Your task to perform on an android device: change notification settings in the gmail app Image 0: 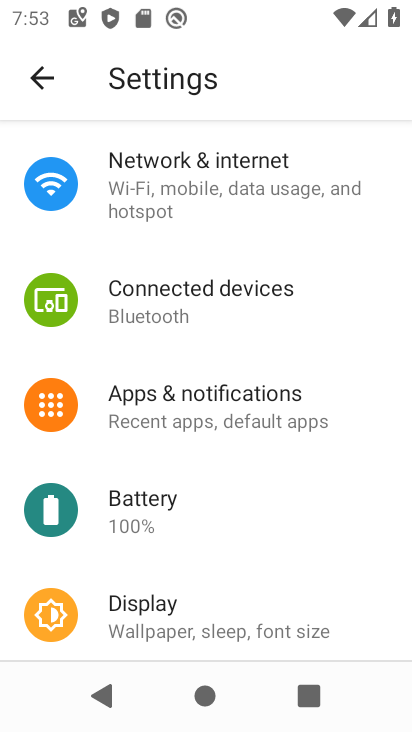
Step 0: drag from (235, 594) to (294, 143)
Your task to perform on an android device: change notification settings in the gmail app Image 1: 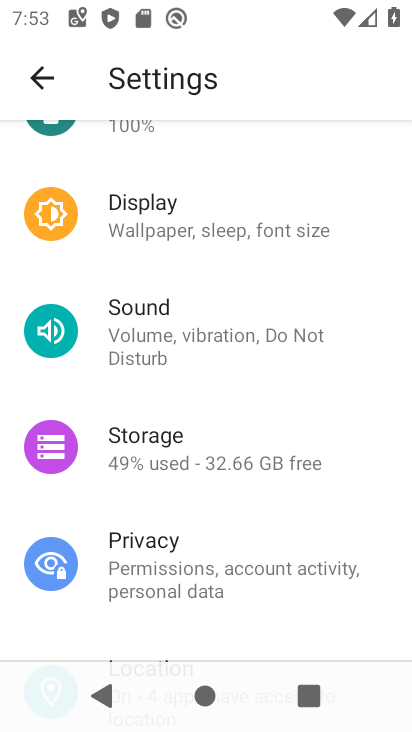
Step 1: press home button
Your task to perform on an android device: change notification settings in the gmail app Image 2: 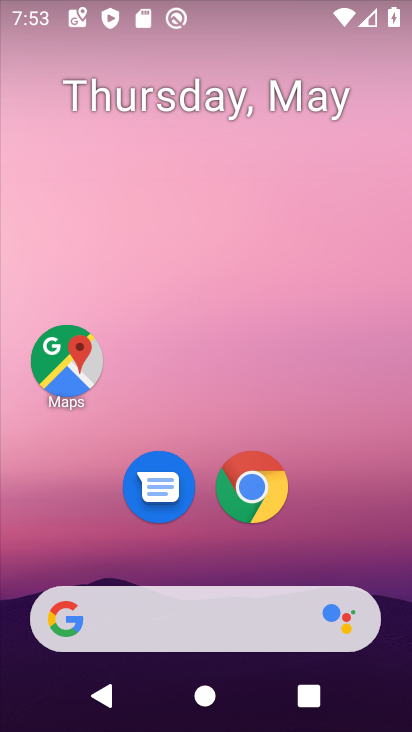
Step 2: drag from (197, 526) to (213, 84)
Your task to perform on an android device: change notification settings in the gmail app Image 3: 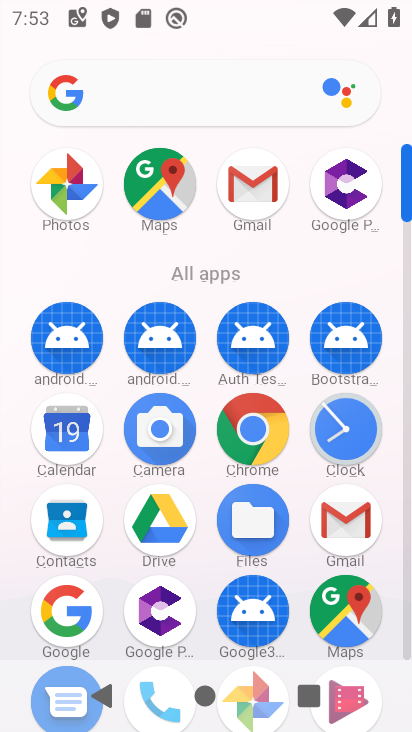
Step 3: drag from (213, 592) to (207, 141)
Your task to perform on an android device: change notification settings in the gmail app Image 4: 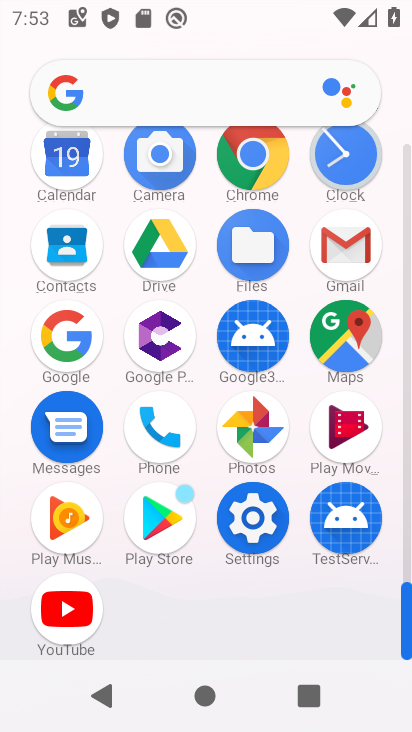
Step 4: click (248, 523)
Your task to perform on an android device: change notification settings in the gmail app Image 5: 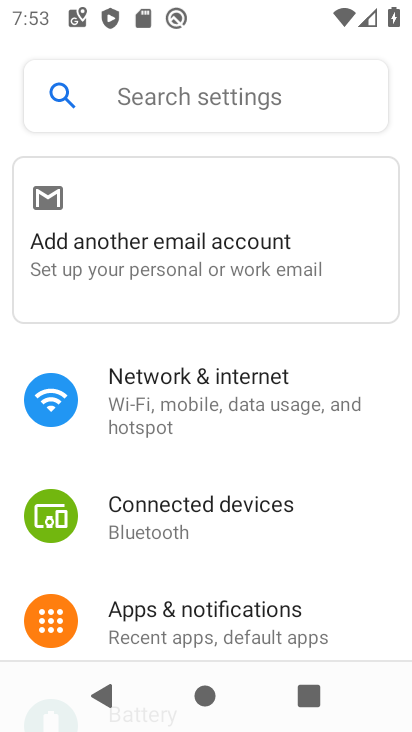
Step 5: drag from (159, 590) to (244, 278)
Your task to perform on an android device: change notification settings in the gmail app Image 6: 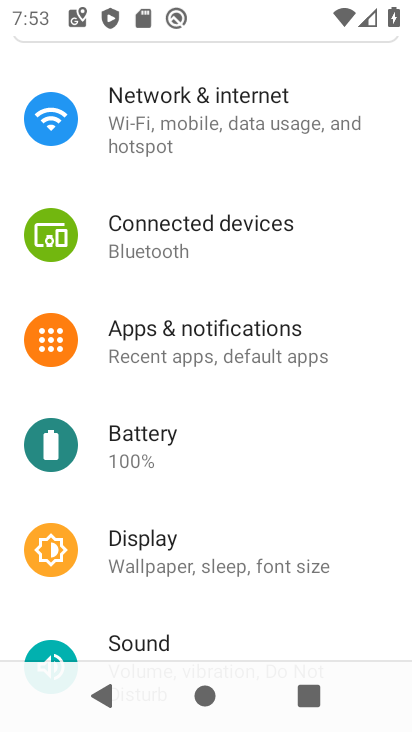
Step 6: press home button
Your task to perform on an android device: change notification settings in the gmail app Image 7: 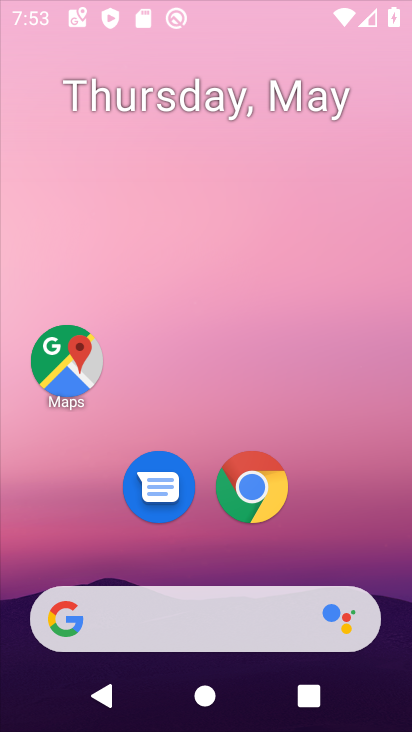
Step 7: drag from (226, 556) to (284, 91)
Your task to perform on an android device: change notification settings in the gmail app Image 8: 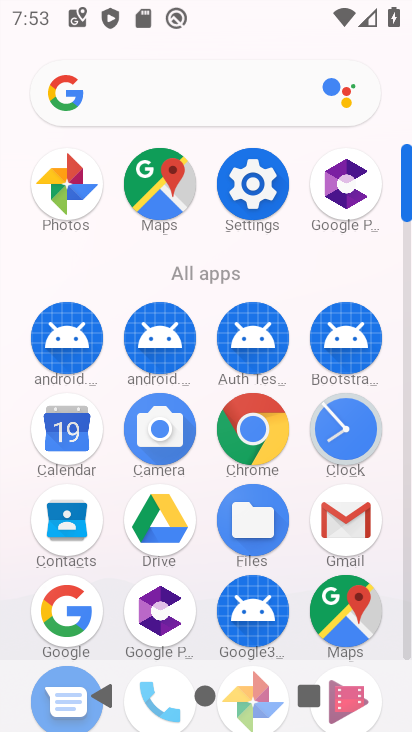
Step 8: click (346, 536)
Your task to perform on an android device: change notification settings in the gmail app Image 9: 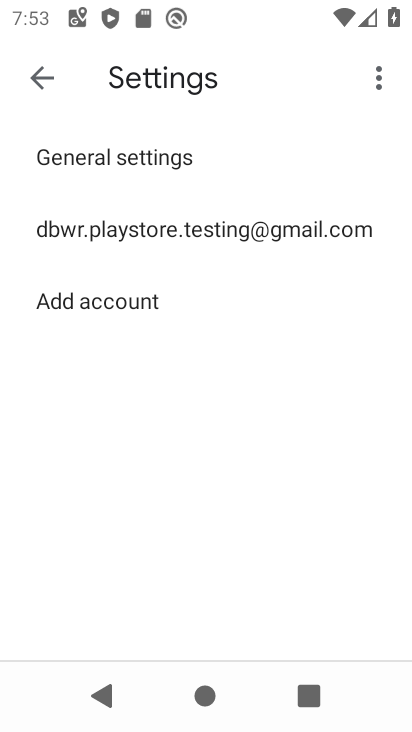
Step 9: click (156, 251)
Your task to perform on an android device: change notification settings in the gmail app Image 10: 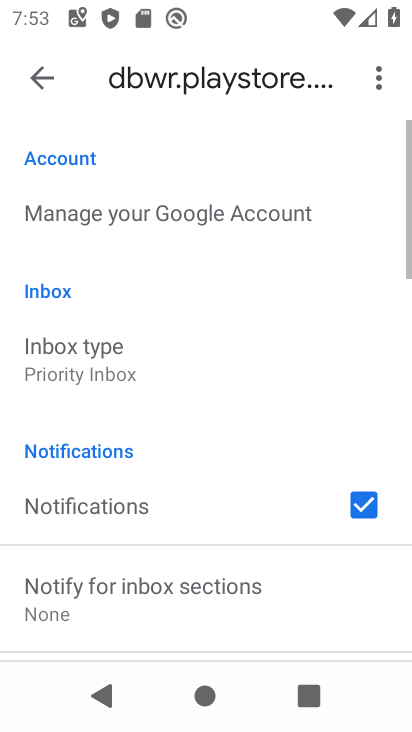
Step 10: drag from (193, 558) to (253, 179)
Your task to perform on an android device: change notification settings in the gmail app Image 11: 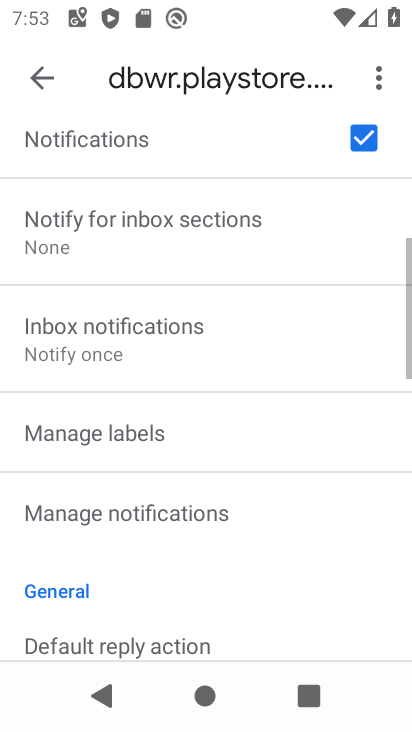
Step 11: click (158, 488)
Your task to perform on an android device: change notification settings in the gmail app Image 12: 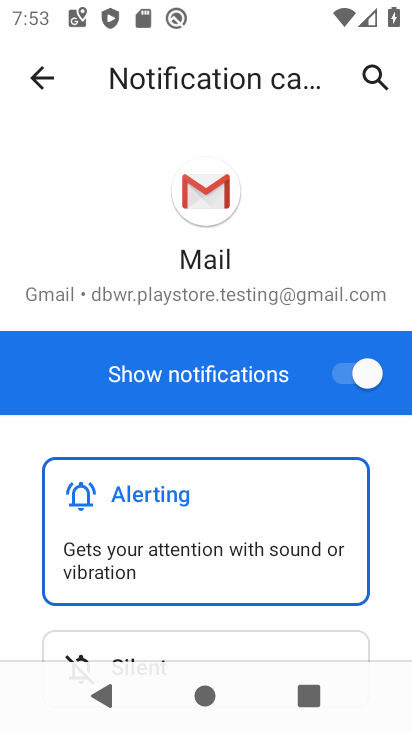
Step 12: click (307, 361)
Your task to perform on an android device: change notification settings in the gmail app Image 13: 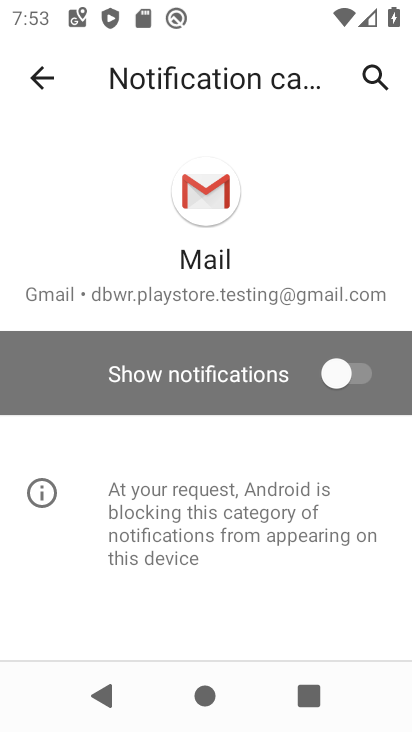
Step 13: task complete